Your task to perform on an android device: Search for good Korean restaurants Image 0: 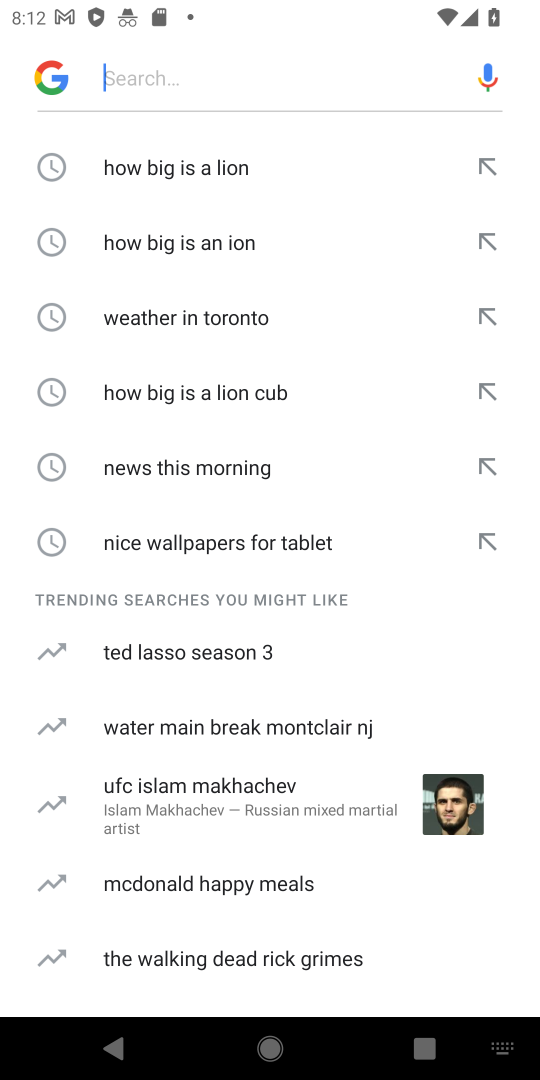
Step 0: press home button
Your task to perform on an android device: Search for good Korean restaurants Image 1: 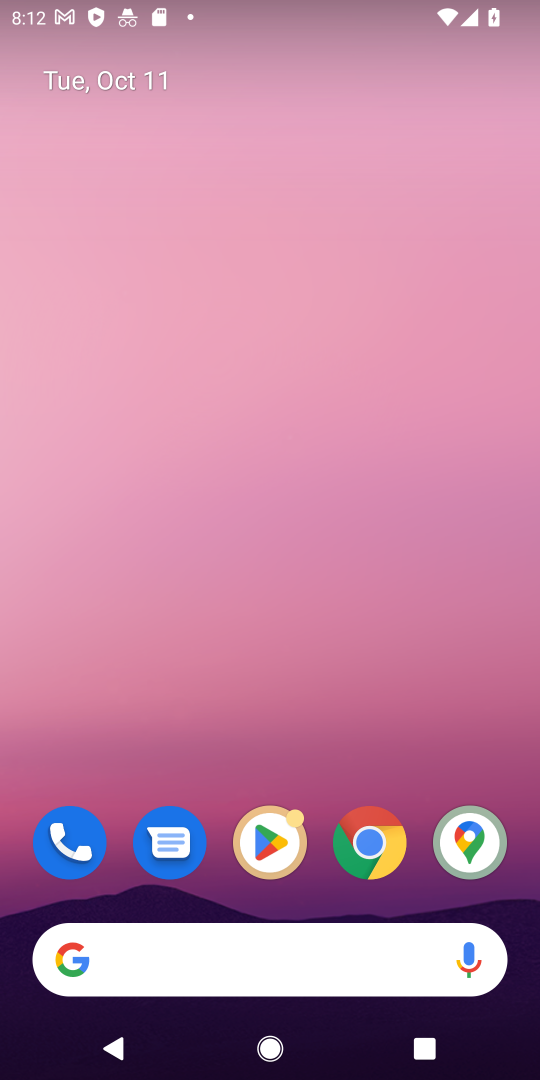
Step 1: click (291, 959)
Your task to perform on an android device: Search for good Korean restaurants Image 2: 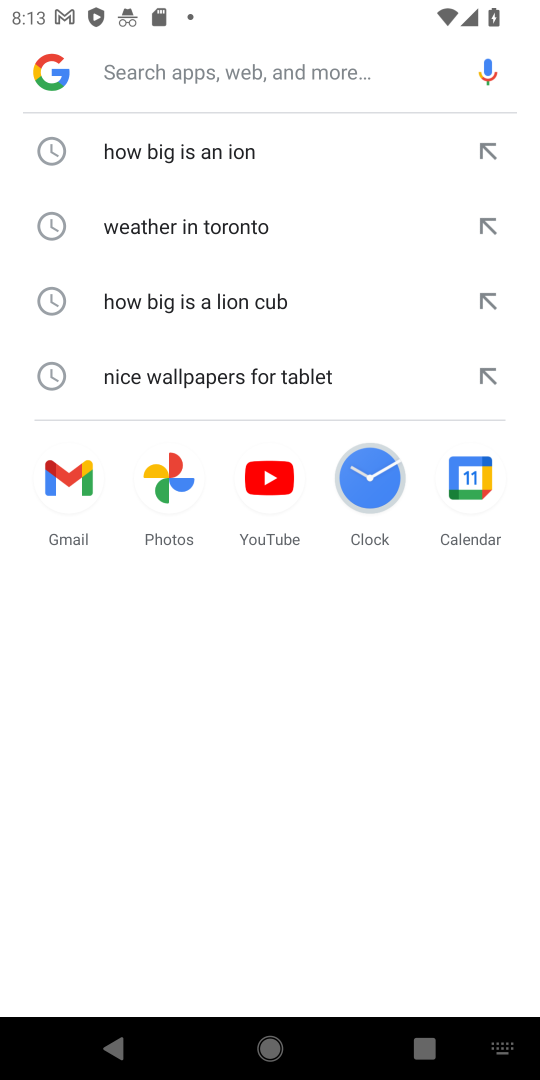
Step 2: type "good Korean restaurants"
Your task to perform on an android device: Search for good Korean restaurants Image 3: 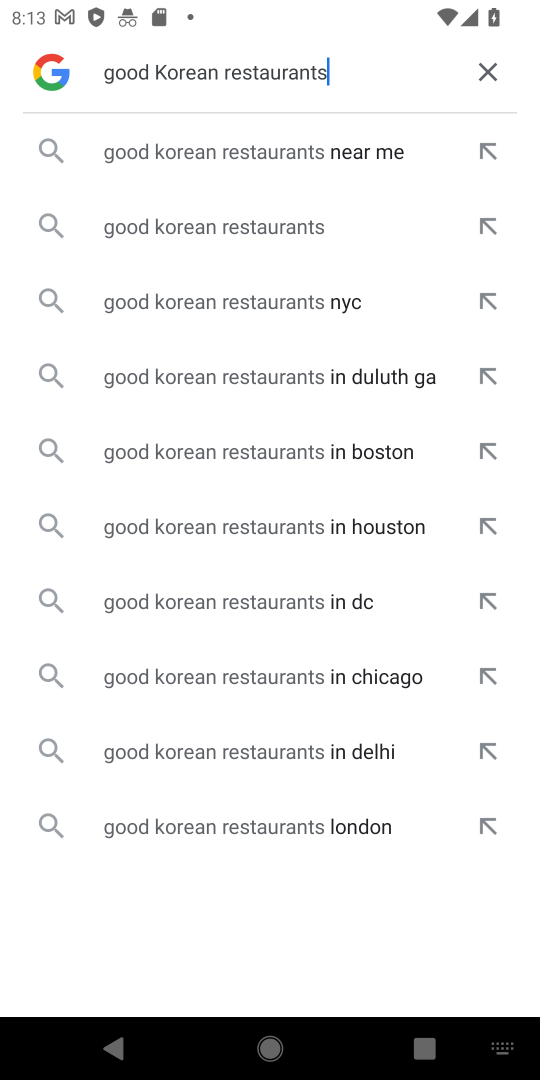
Step 3: click (239, 162)
Your task to perform on an android device: Search for good Korean restaurants Image 4: 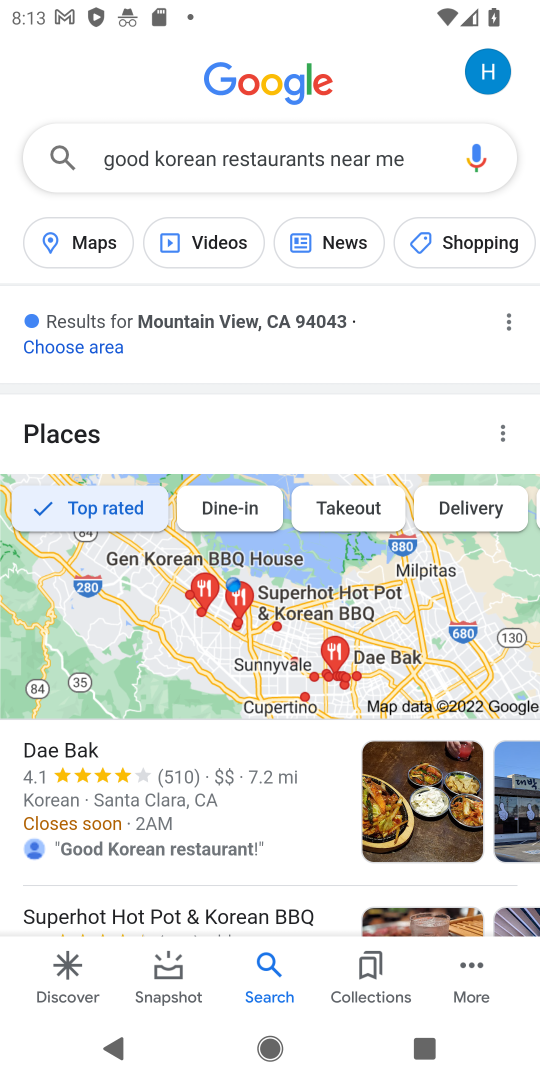
Step 4: drag from (183, 839) to (253, 489)
Your task to perform on an android device: Search for good Korean restaurants Image 5: 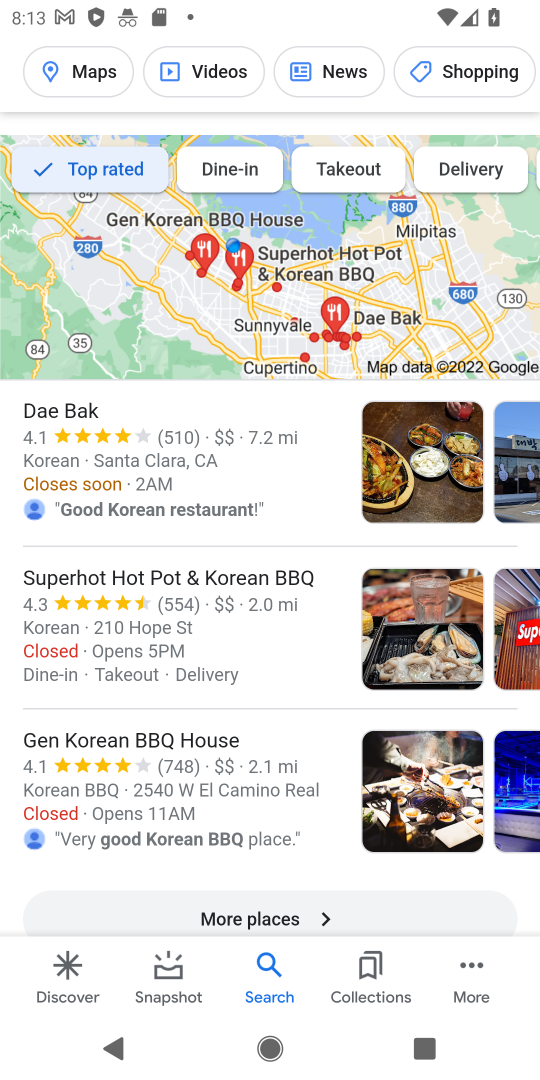
Step 5: drag from (246, 623) to (282, 315)
Your task to perform on an android device: Search for good Korean restaurants Image 6: 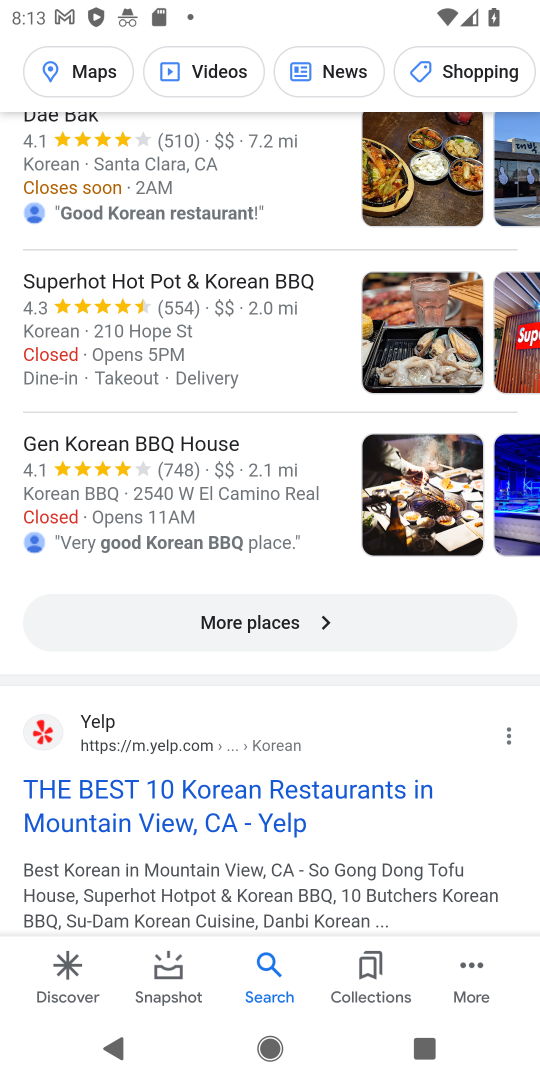
Step 6: click (278, 315)
Your task to perform on an android device: Search for good Korean restaurants Image 7: 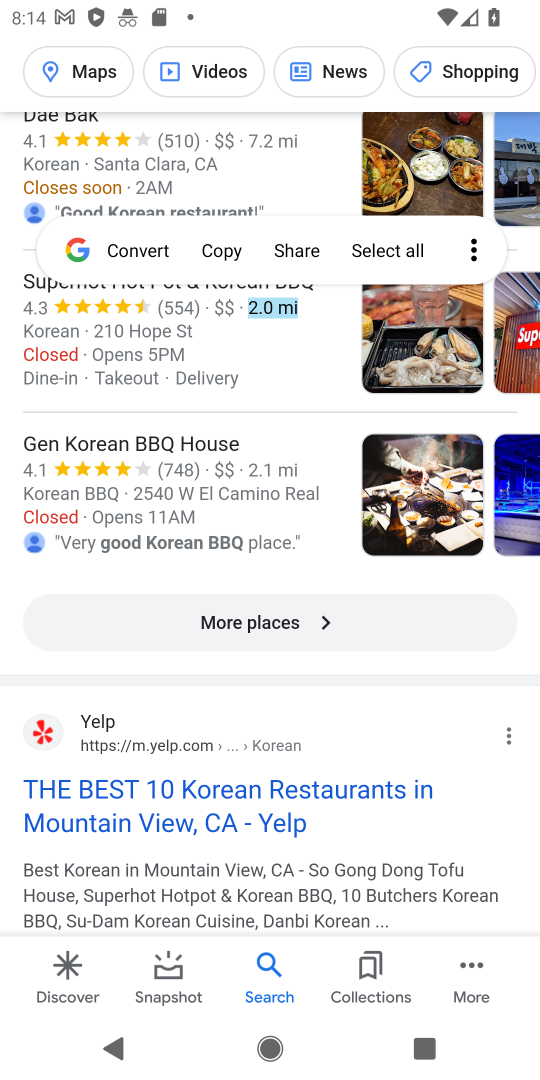
Step 7: click (278, 315)
Your task to perform on an android device: Search for good Korean restaurants Image 8: 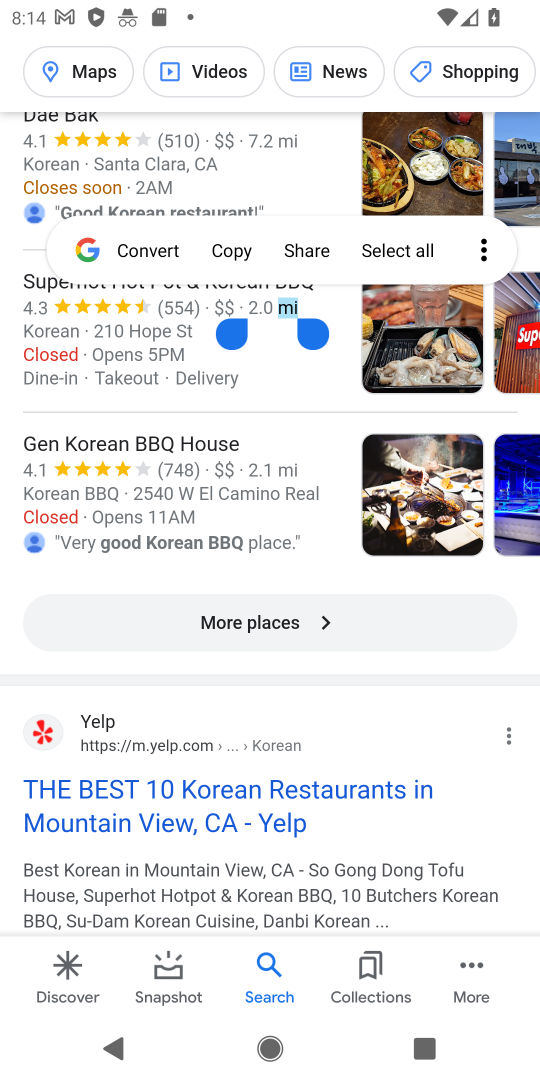
Step 8: task complete